Your task to perform on an android device: move a message to another label in the gmail app Image 0: 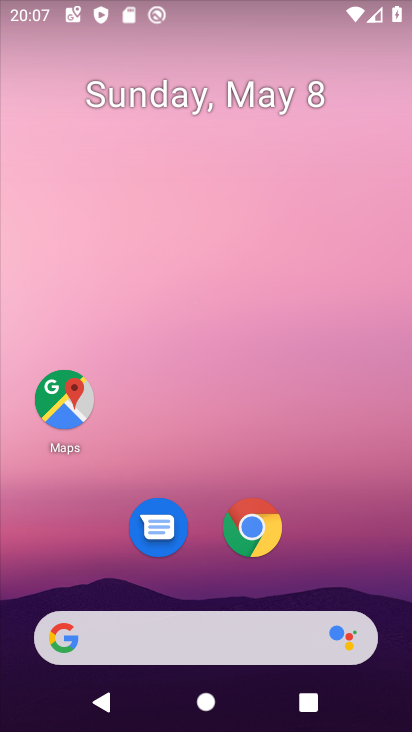
Step 0: drag from (338, 521) to (280, 22)
Your task to perform on an android device: move a message to another label in the gmail app Image 1: 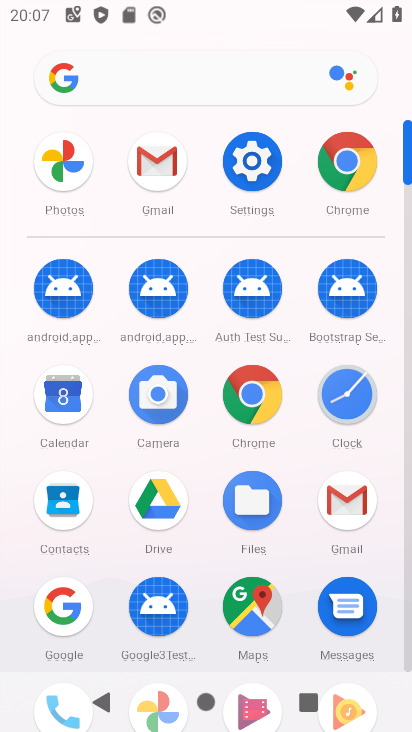
Step 1: click (345, 498)
Your task to perform on an android device: move a message to another label in the gmail app Image 2: 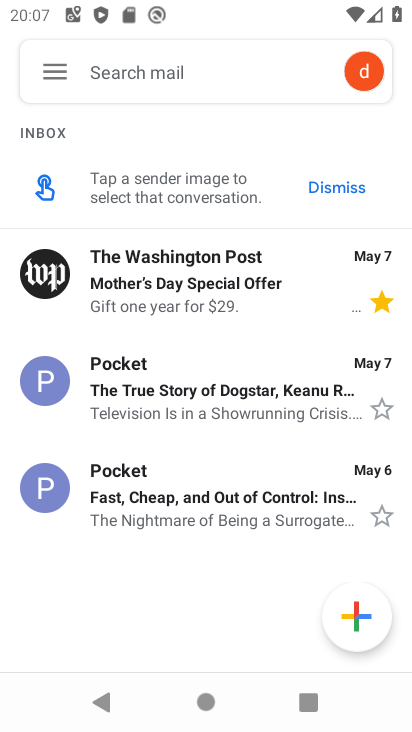
Step 2: click (55, 66)
Your task to perform on an android device: move a message to another label in the gmail app Image 3: 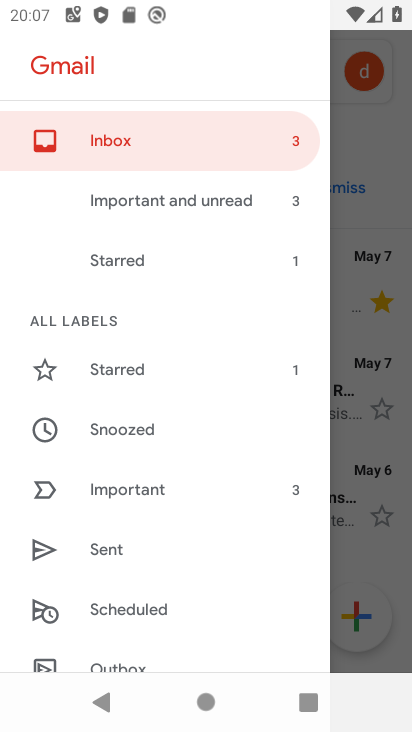
Step 3: click (344, 216)
Your task to perform on an android device: move a message to another label in the gmail app Image 4: 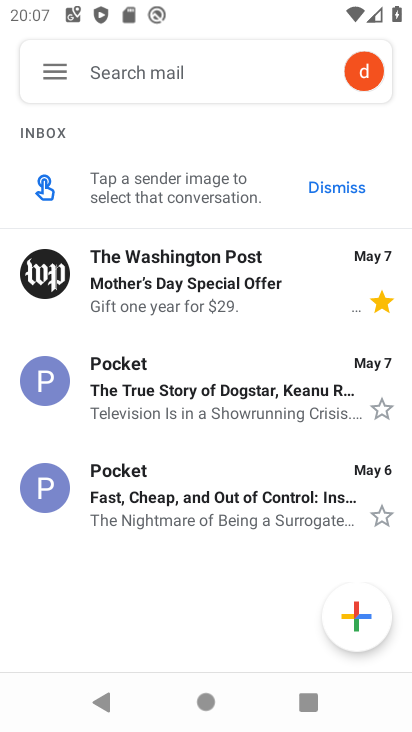
Step 4: click (281, 277)
Your task to perform on an android device: move a message to another label in the gmail app Image 5: 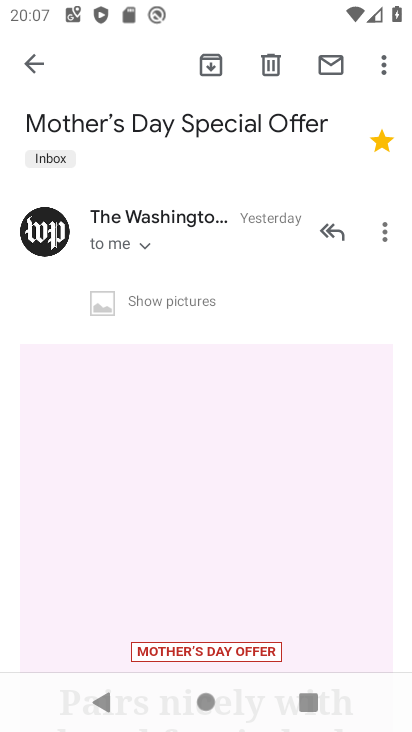
Step 5: click (49, 160)
Your task to perform on an android device: move a message to another label in the gmail app Image 6: 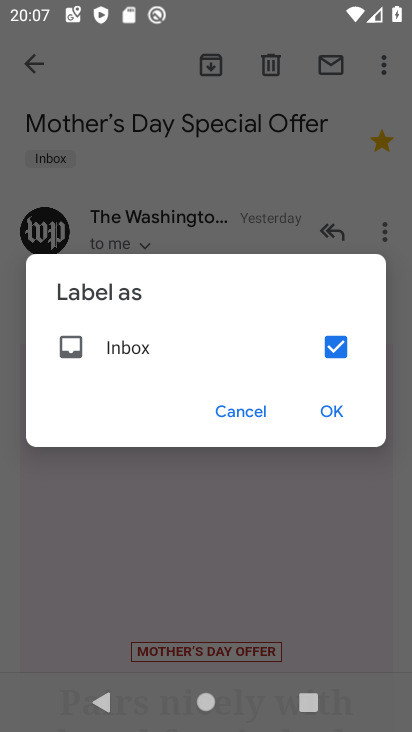
Step 6: click (324, 340)
Your task to perform on an android device: move a message to another label in the gmail app Image 7: 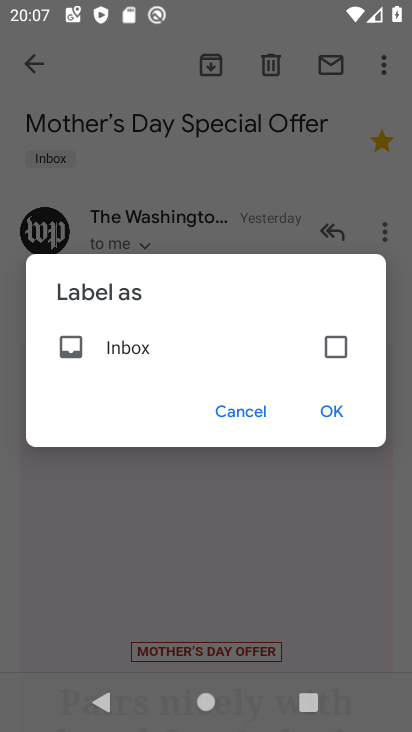
Step 7: click (339, 403)
Your task to perform on an android device: move a message to another label in the gmail app Image 8: 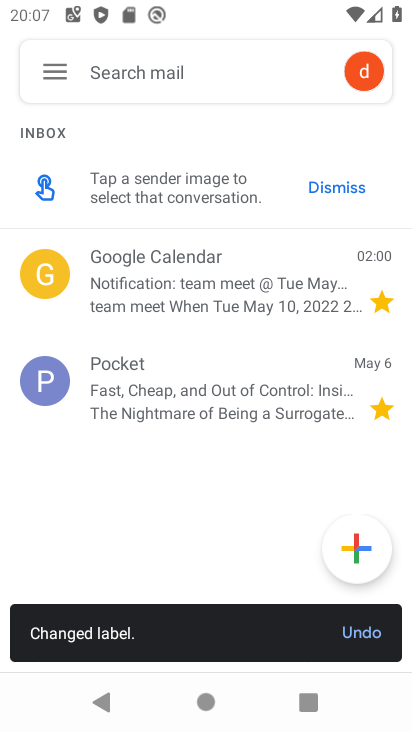
Step 8: task complete